Your task to perform on an android device: Open calendar and show me the fourth week of next month Image 0: 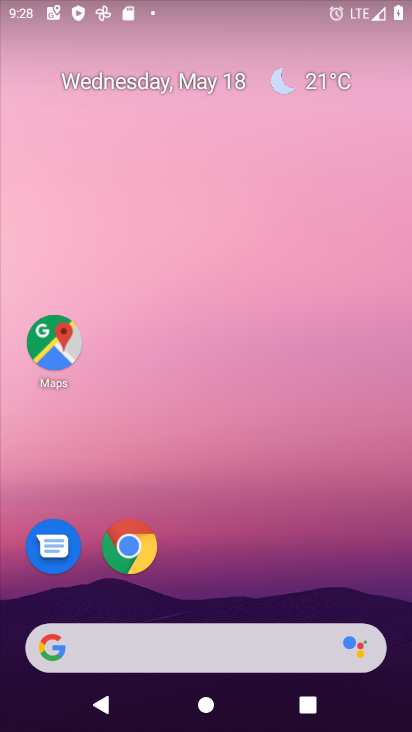
Step 0: click (390, 635)
Your task to perform on an android device: Open calendar and show me the fourth week of next month Image 1: 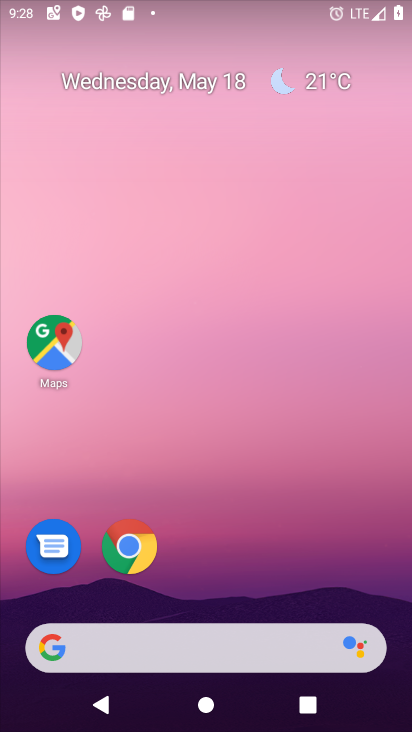
Step 1: drag from (390, 406) to (318, 51)
Your task to perform on an android device: Open calendar and show me the fourth week of next month Image 2: 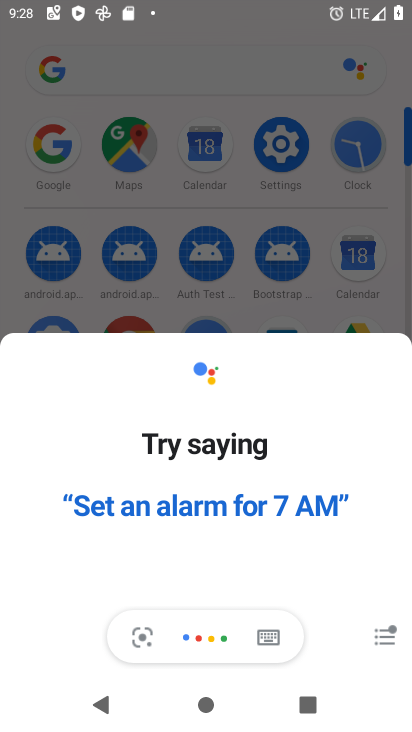
Step 2: press home button
Your task to perform on an android device: Open calendar and show me the fourth week of next month Image 3: 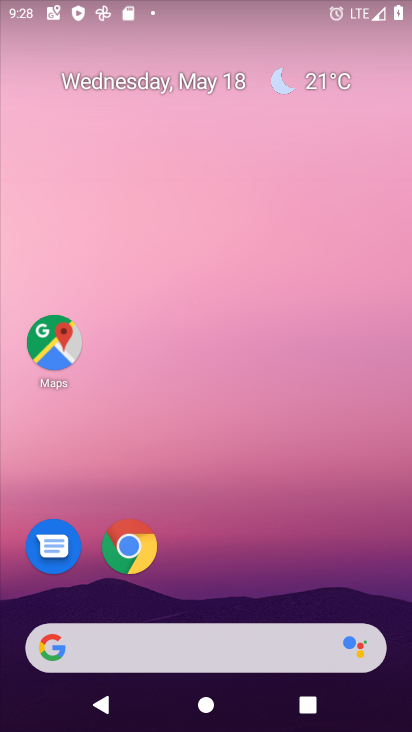
Step 3: drag from (397, 612) to (379, 440)
Your task to perform on an android device: Open calendar and show me the fourth week of next month Image 4: 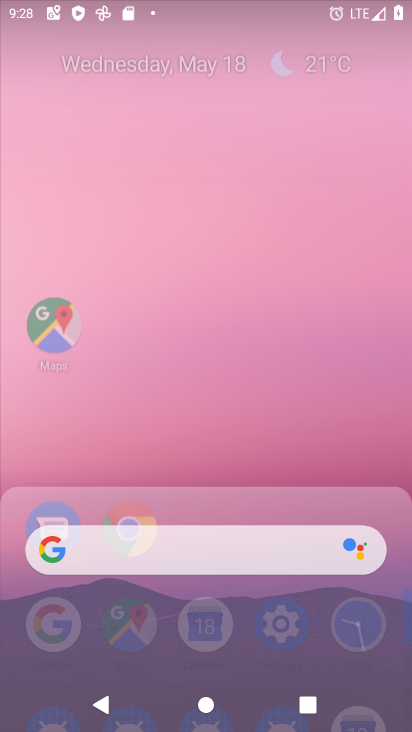
Step 4: drag from (343, 192) to (308, 45)
Your task to perform on an android device: Open calendar and show me the fourth week of next month Image 5: 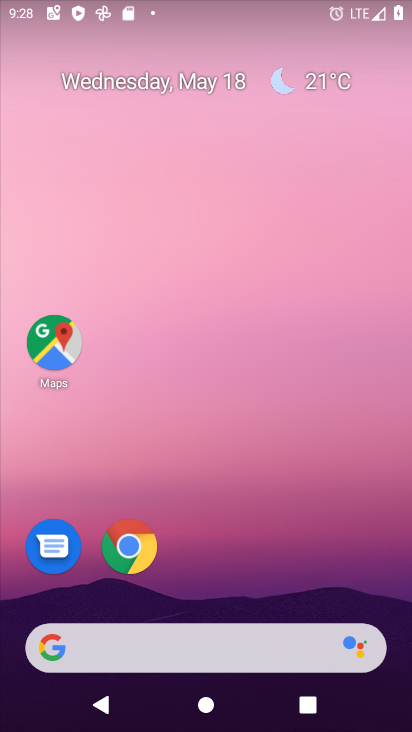
Step 5: drag from (377, 548) to (282, 35)
Your task to perform on an android device: Open calendar and show me the fourth week of next month Image 6: 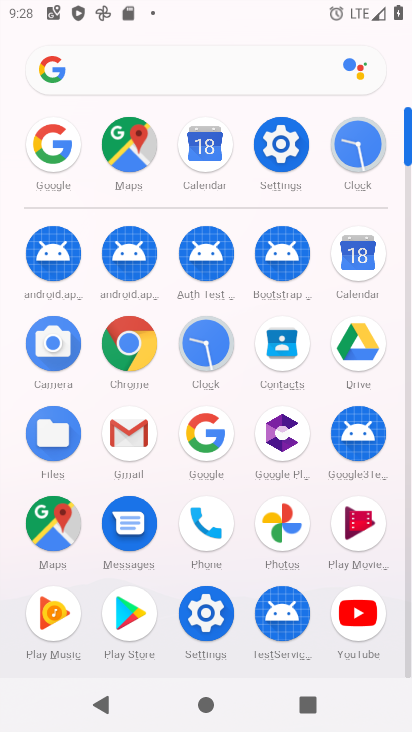
Step 6: click (358, 269)
Your task to perform on an android device: Open calendar and show me the fourth week of next month Image 7: 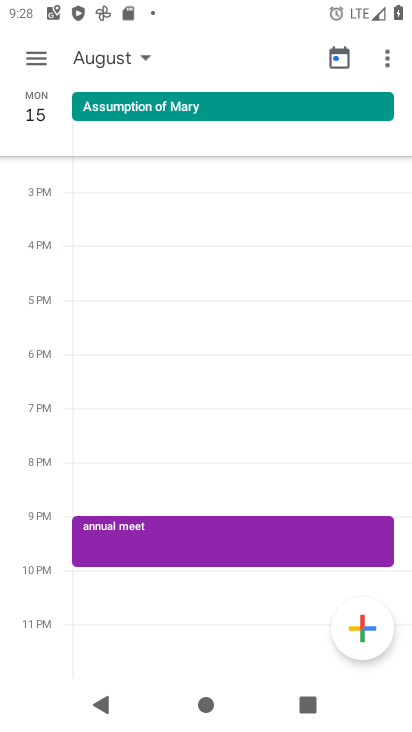
Step 7: click (88, 45)
Your task to perform on an android device: Open calendar and show me the fourth week of next month Image 8: 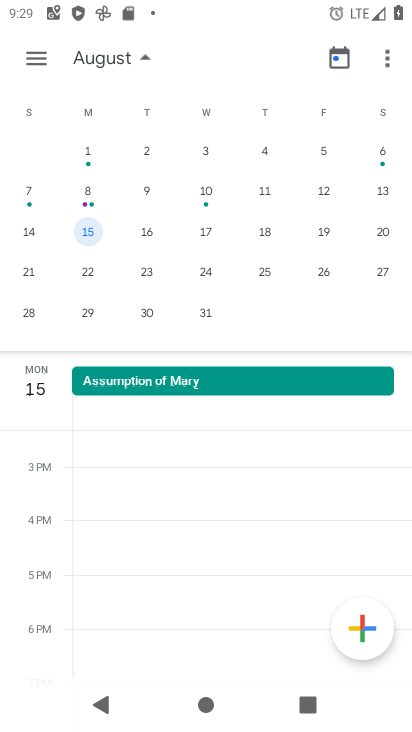
Step 8: drag from (335, 269) to (26, 179)
Your task to perform on an android device: Open calendar and show me the fourth week of next month Image 9: 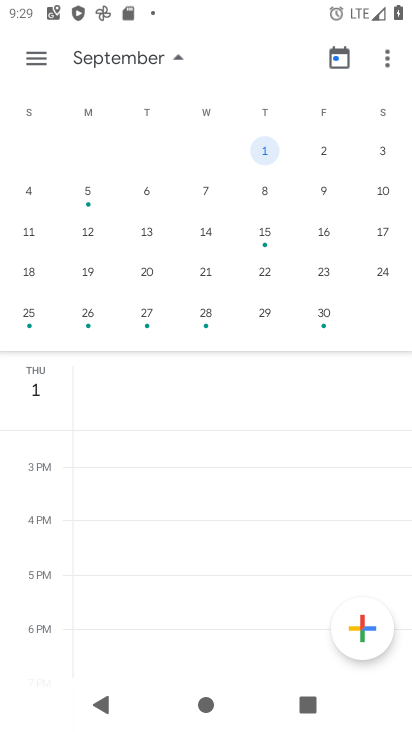
Step 9: click (88, 320)
Your task to perform on an android device: Open calendar and show me the fourth week of next month Image 10: 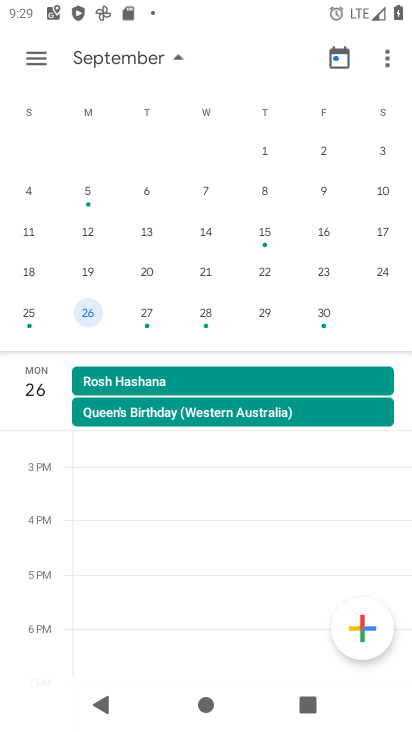
Step 10: task complete